Your task to perform on an android device: Go to Google maps Image 0: 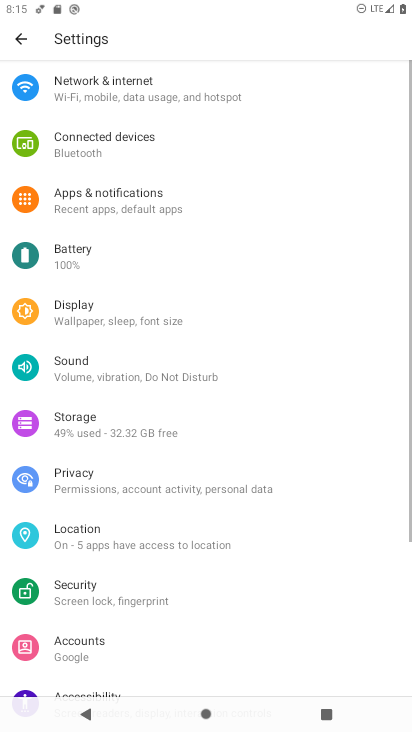
Step 0: press home button
Your task to perform on an android device: Go to Google maps Image 1: 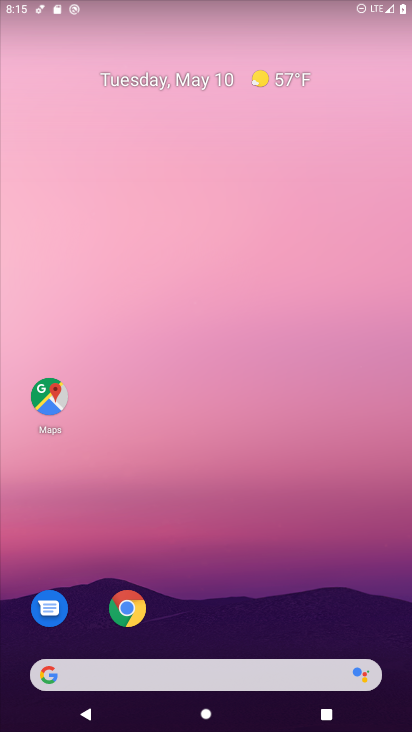
Step 1: drag from (337, 596) to (257, 123)
Your task to perform on an android device: Go to Google maps Image 2: 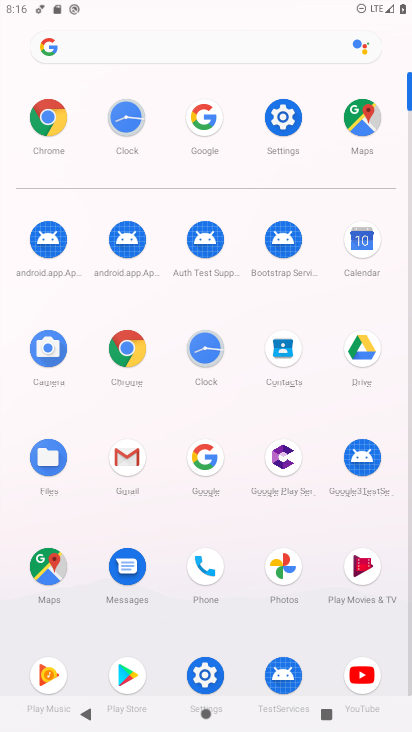
Step 2: click (364, 127)
Your task to perform on an android device: Go to Google maps Image 3: 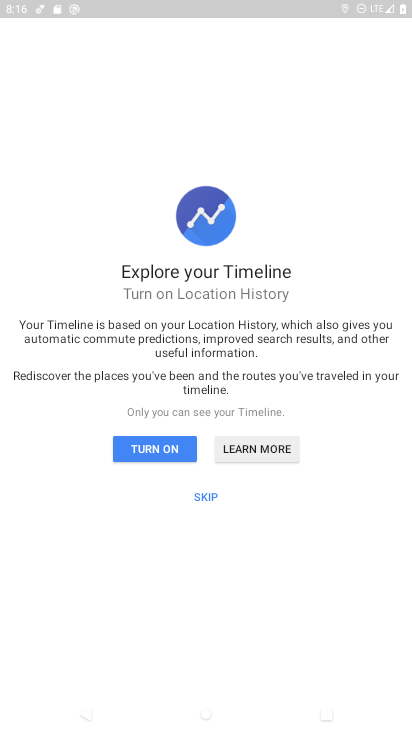
Step 3: task complete